Your task to perform on an android device: Go to battery settings Image 0: 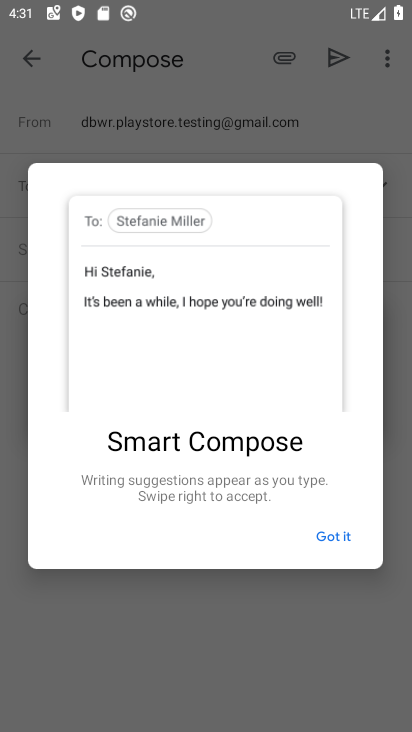
Step 0: press home button
Your task to perform on an android device: Go to battery settings Image 1: 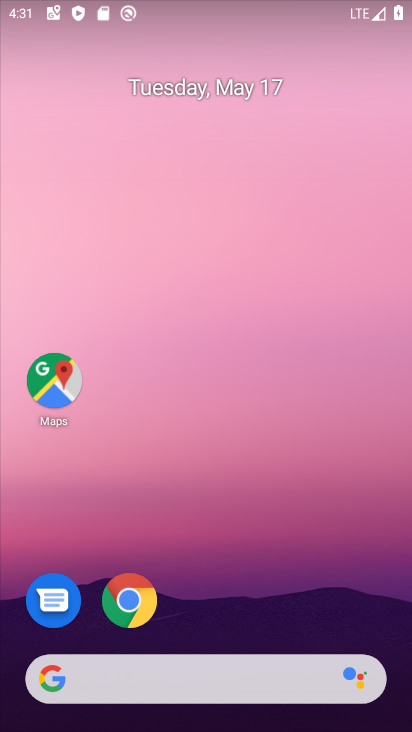
Step 1: drag from (388, 634) to (311, 70)
Your task to perform on an android device: Go to battery settings Image 2: 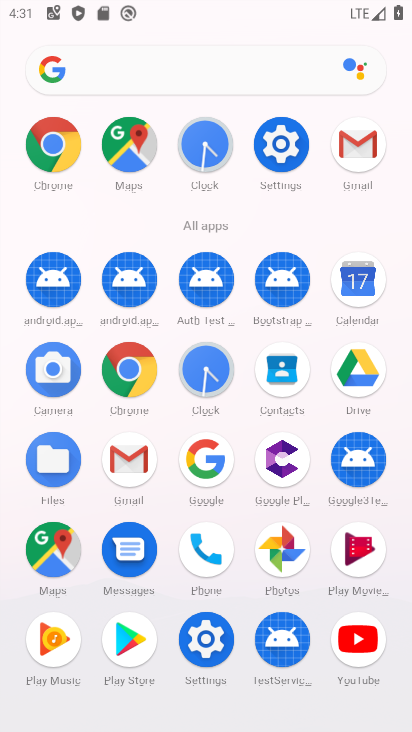
Step 2: click (209, 646)
Your task to perform on an android device: Go to battery settings Image 3: 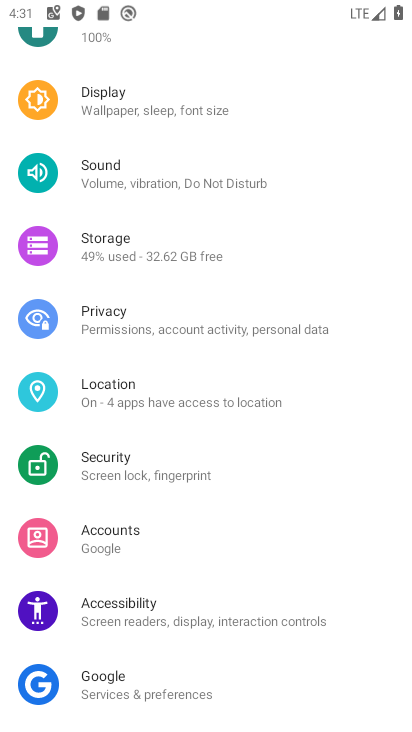
Step 3: drag from (292, 87) to (336, 492)
Your task to perform on an android device: Go to battery settings Image 4: 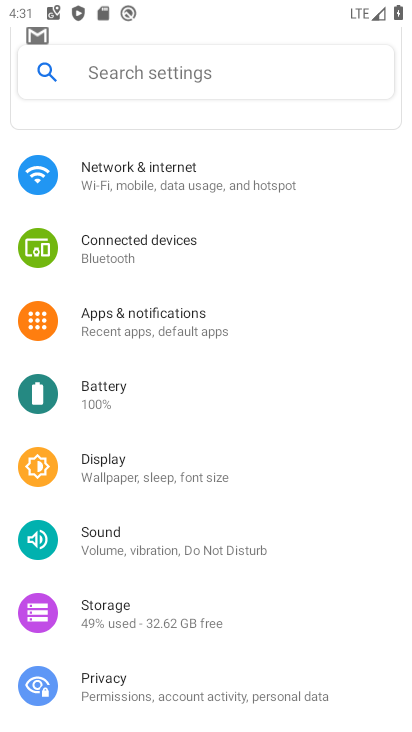
Step 4: click (110, 389)
Your task to perform on an android device: Go to battery settings Image 5: 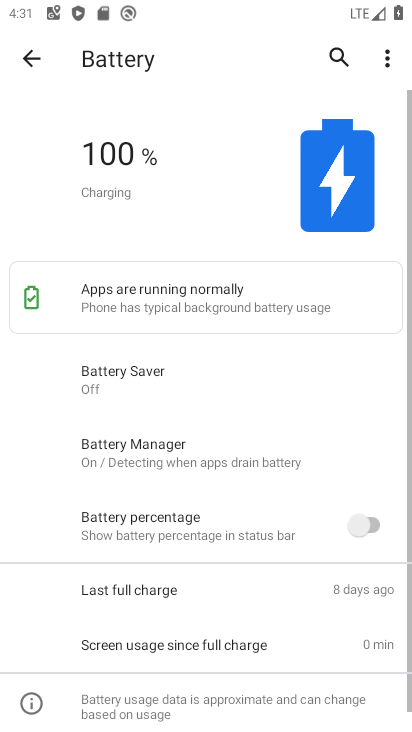
Step 5: task complete